Your task to perform on an android device: open app "Life360: Find Family & Friends" Image 0: 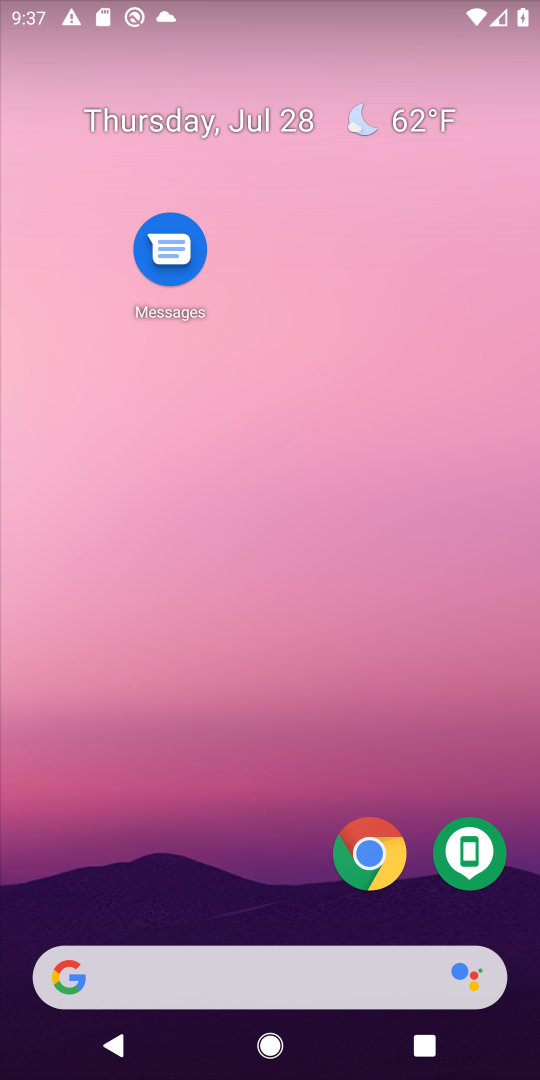
Step 0: drag from (200, 594) to (192, 109)
Your task to perform on an android device: open app "Life360: Find Family & Friends" Image 1: 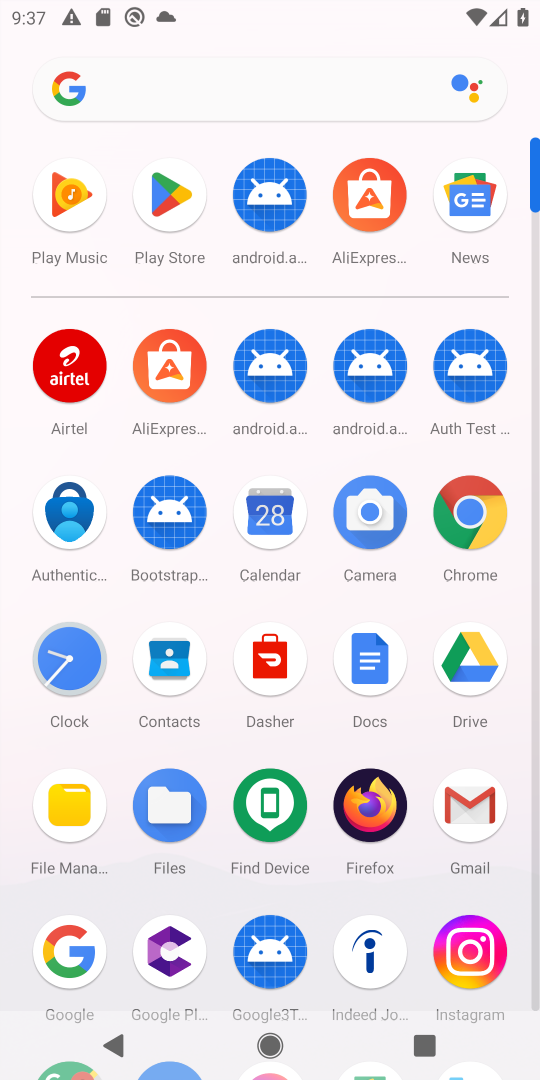
Step 1: click (153, 195)
Your task to perform on an android device: open app "Life360: Find Family & Friends" Image 2: 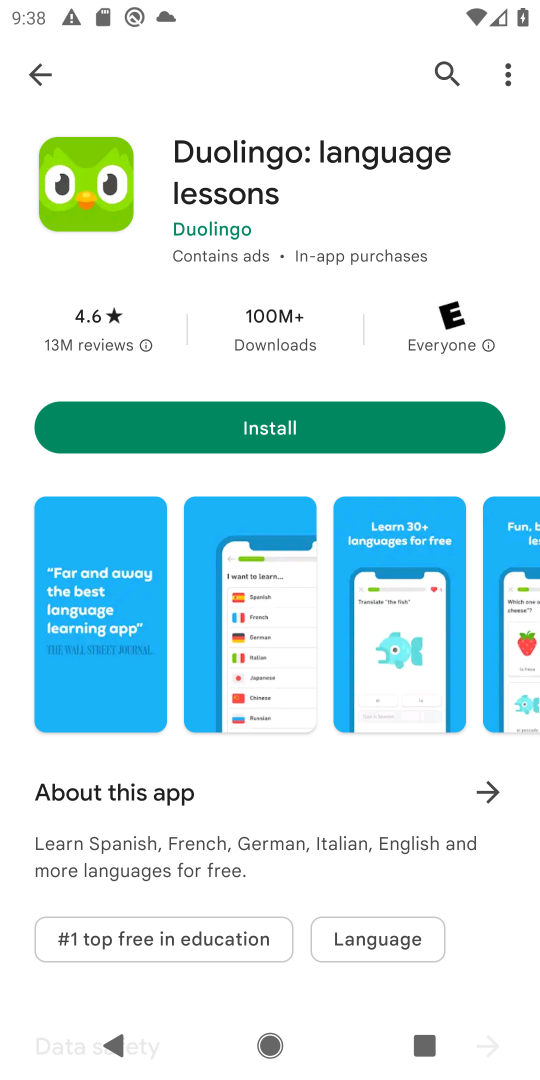
Step 2: press home button
Your task to perform on an android device: open app "Life360: Find Family & Friends" Image 3: 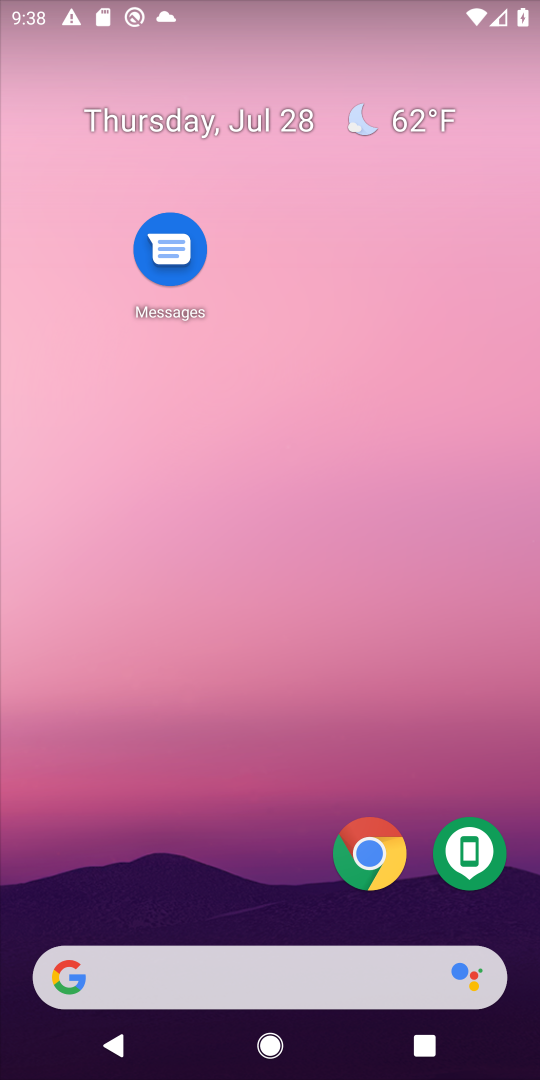
Step 3: drag from (257, 759) to (230, 161)
Your task to perform on an android device: open app "Life360: Find Family & Friends" Image 4: 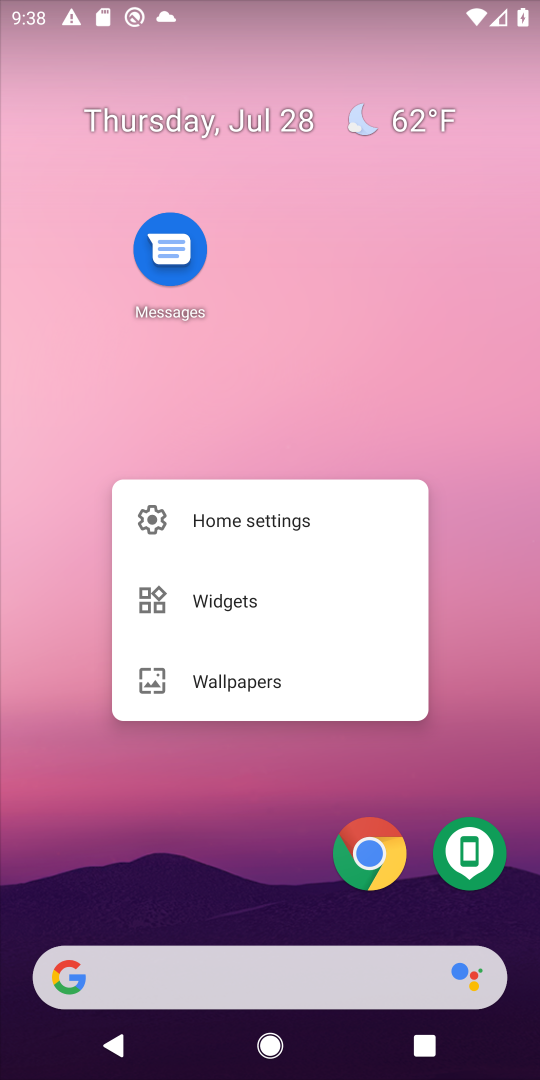
Step 4: click (230, 824)
Your task to perform on an android device: open app "Life360: Find Family & Friends" Image 5: 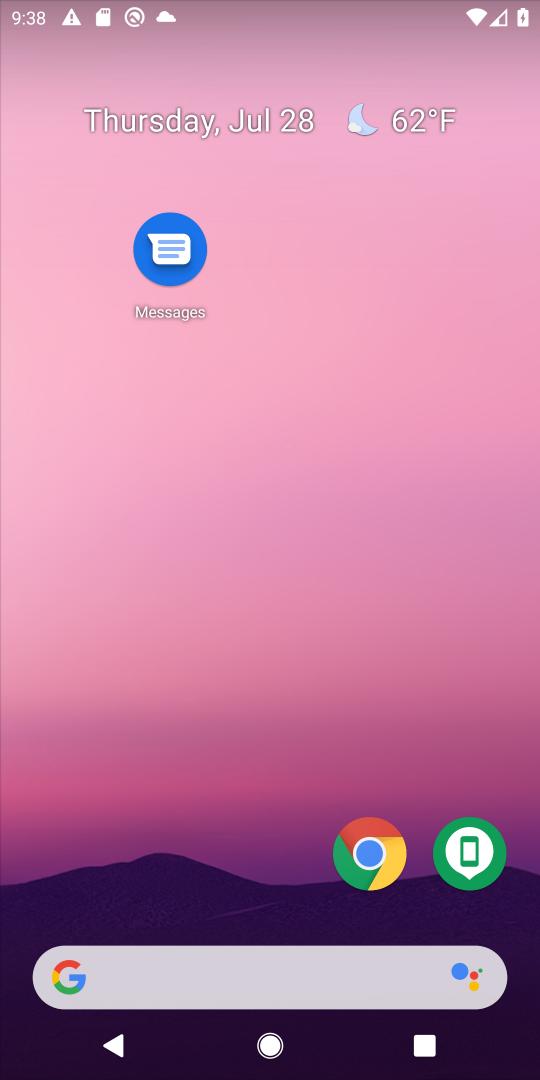
Step 5: drag from (230, 759) to (230, 288)
Your task to perform on an android device: open app "Life360: Find Family & Friends" Image 6: 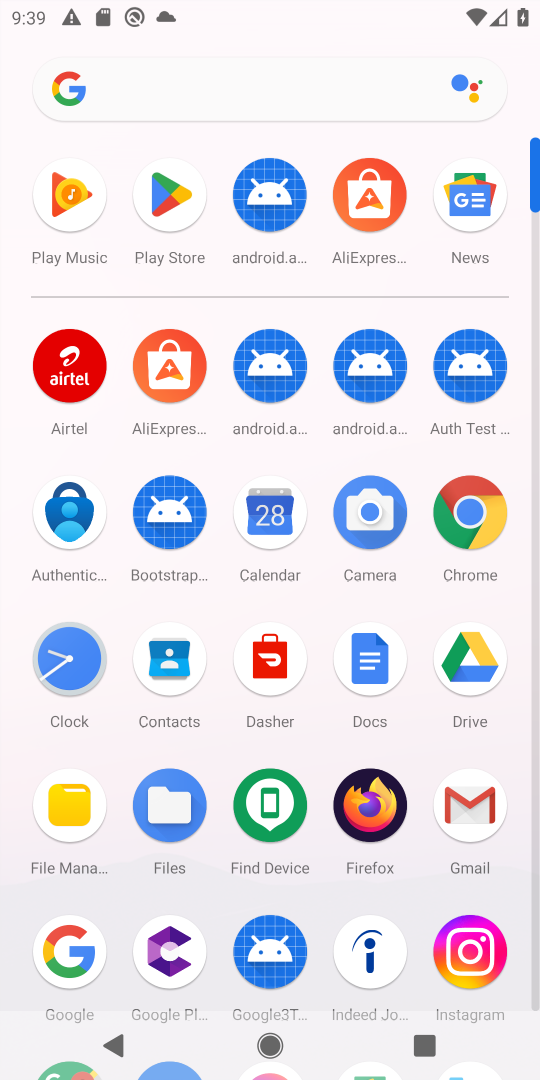
Step 6: click (166, 198)
Your task to perform on an android device: open app "Life360: Find Family & Friends" Image 7: 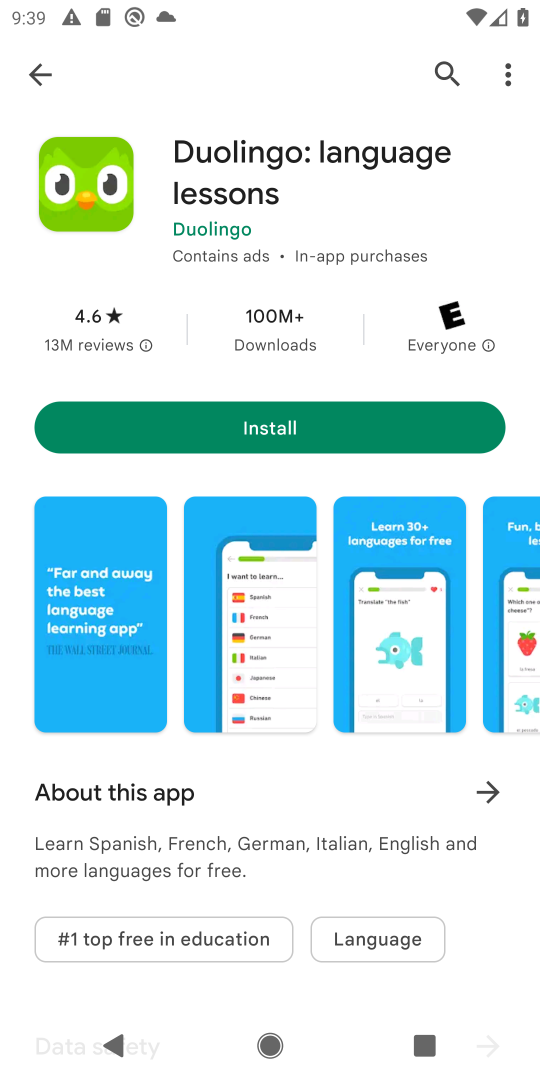
Step 7: click (36, 82)
Your task to perform on an android device: open app "Life360: Find Family & Friends" Image 8: 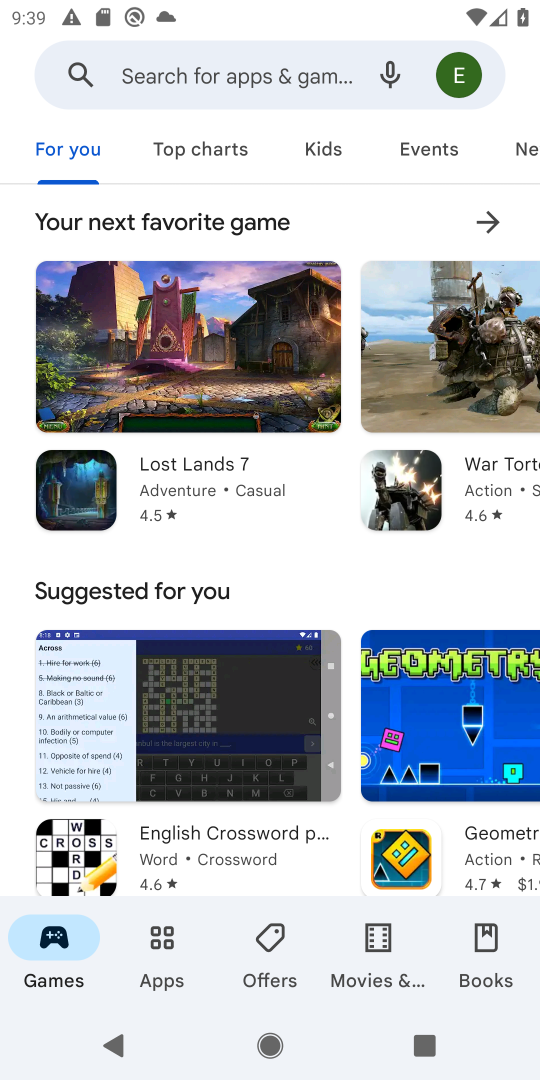
Step 8: click (185, 80)
Your task to perform on an android device: open app "Life360: Find Family & Friends" Image 9: 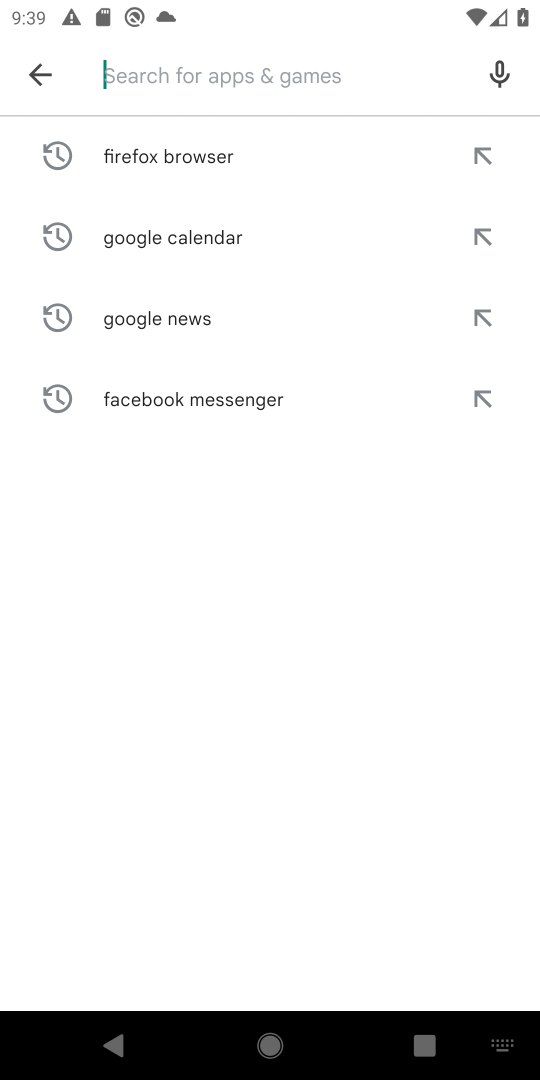
Step 9: type "Life360: Find Family & Friends"
Your task to perform on an android device: open app "Life360: Find Family & Friends" Image 10: 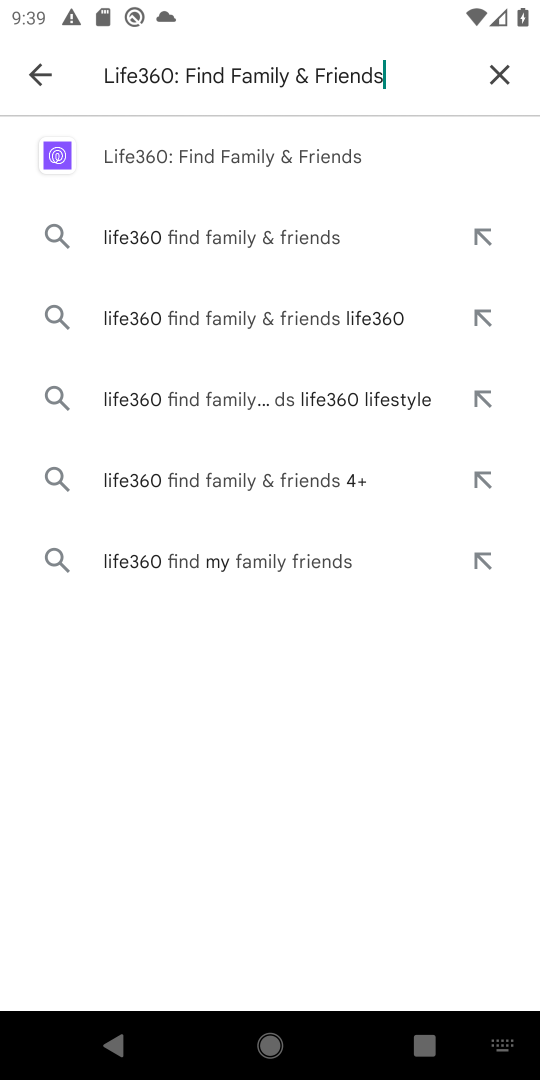
Step 10: click (238, 160)
Your task to perform on an android device: open app "Life360: Find Family & Friends" Image 11: 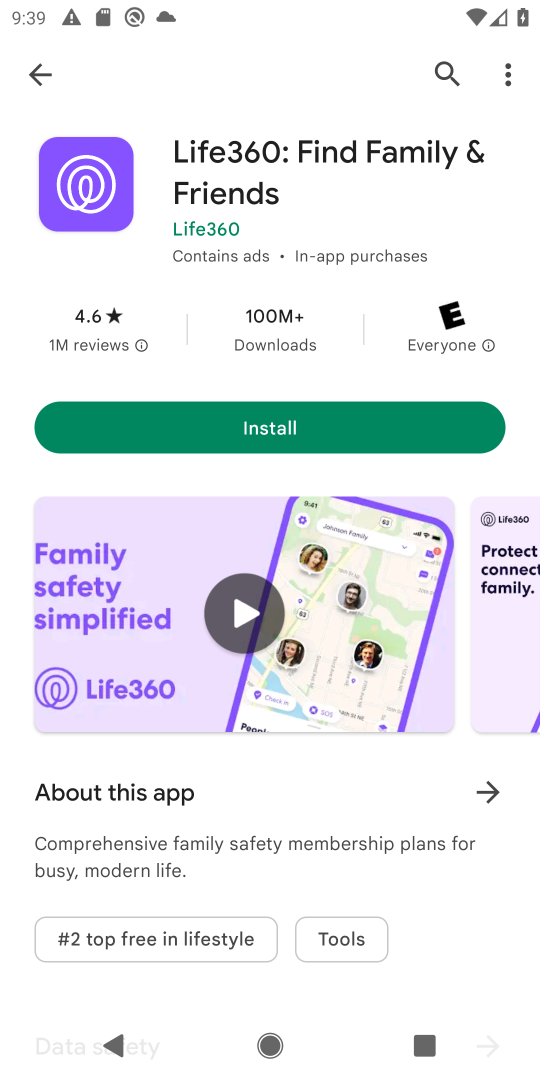
Step 11: click (277, 420)
Your task to perform on an android device: open app "Life360: Find Family & Friends" Image 12: 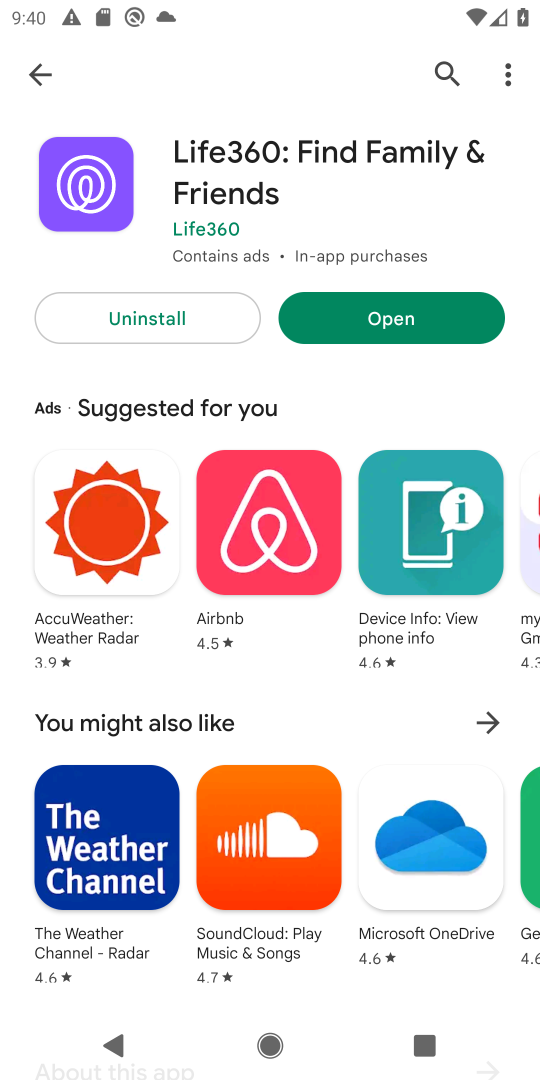
Step 12: click (386, 330)
Your task to perform on an android device: open app "Life360: Find Family & Friends" Image 13: 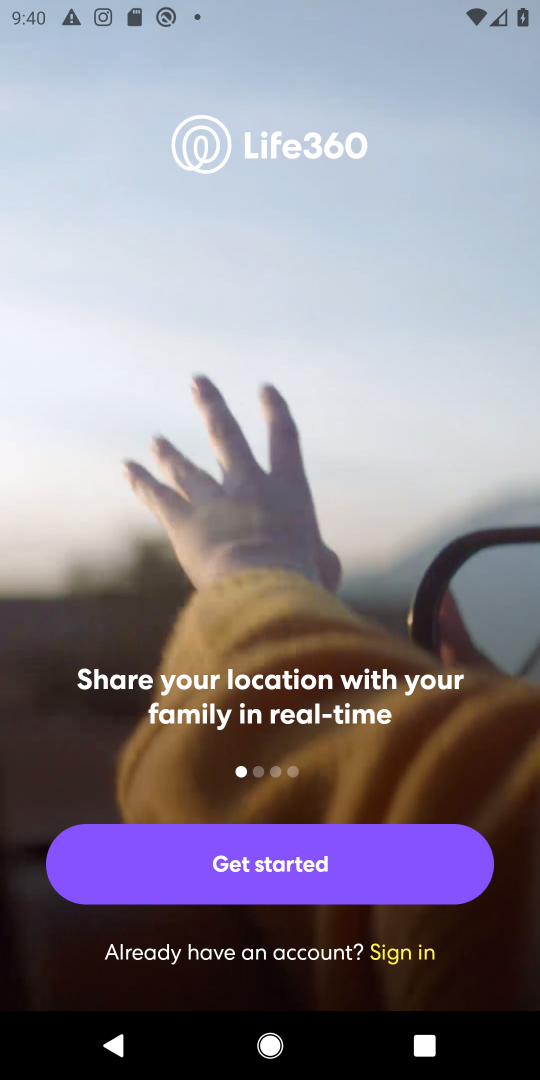
Step 13: task complete